Your task to perform on an android device: check storage Image 0: 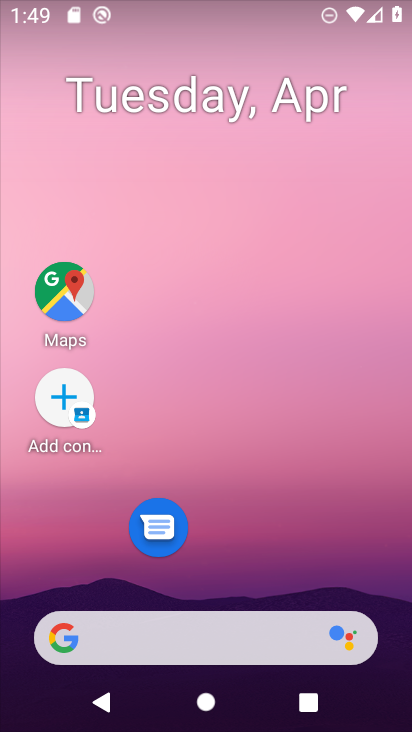
Step 0: drag from (247, 588) to (195, 173)
Your task to perform on an android device: check storage Image 1: 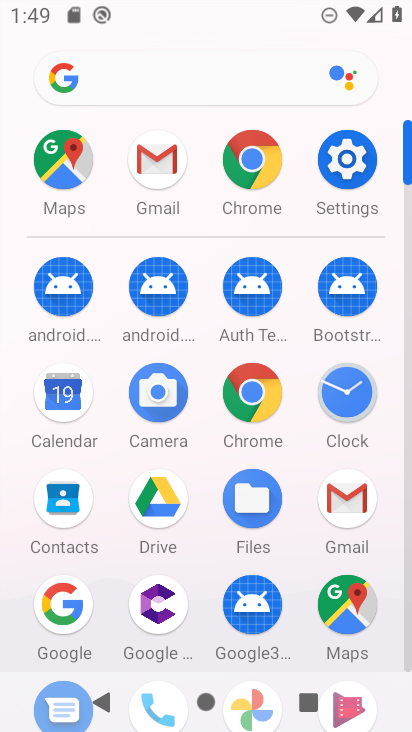
Step 1: click (346, 160)
Your task to perform on an android device: check storage Image 2: 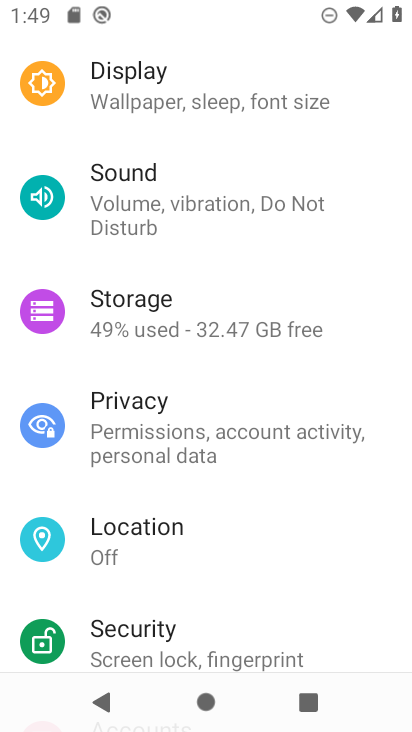
Step 2: click (135, 299)
Your task to perform on an android device: check storage Image 3: 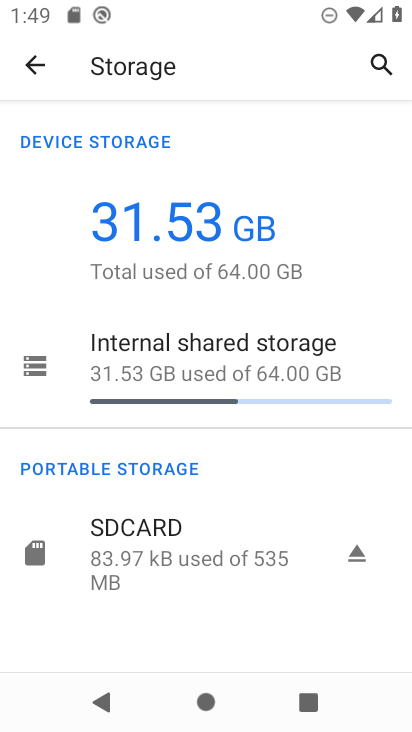
Step 3: task complete